Your task to perform on an android device: check google app version Image 0: 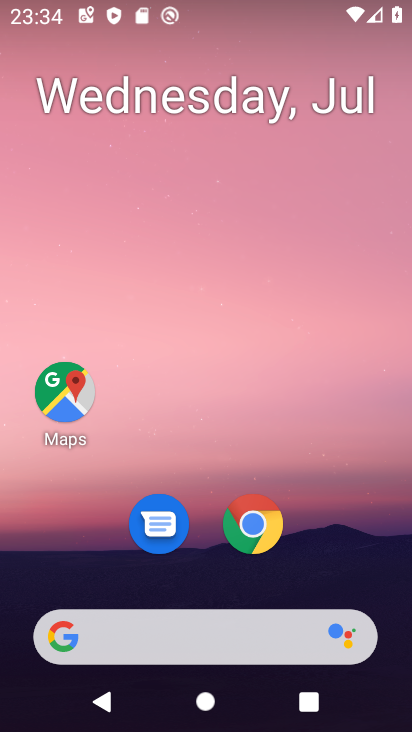
Step 0: drag from (201, 649) to (287, 136)
Your task to perform on an android device: check google app version Image 1: 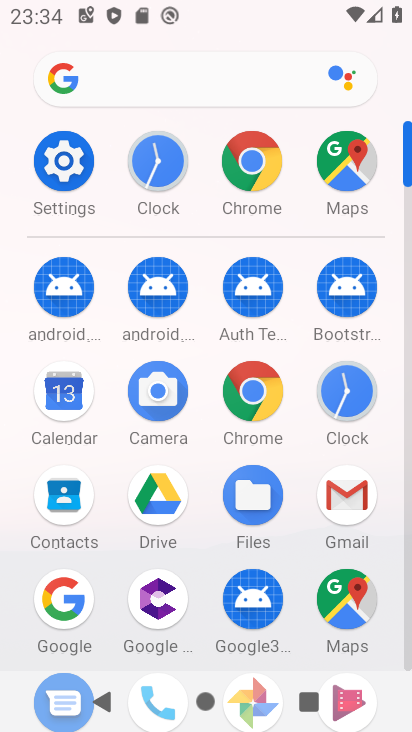
Step 1: click (74, 586)
Your task to perform on an android device: check google app version Image 2: 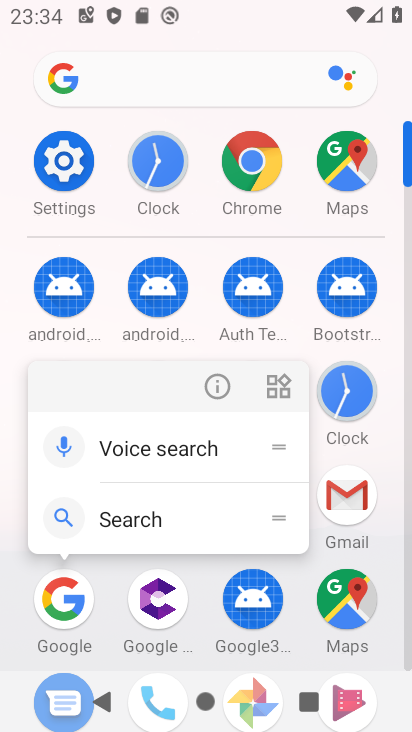
Step 2: click (219, 387)
Your task to perform on an android device: check google app version Image 3: 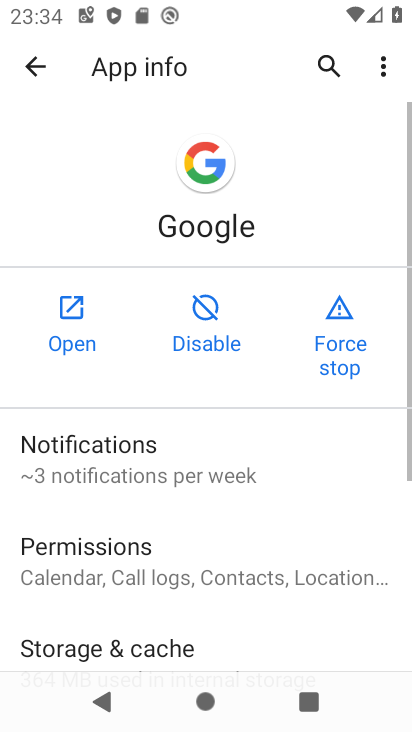
Step 3: drag from (201, 574) to (321, 103)
Your task to perform on an android device: check google app version Image 4: 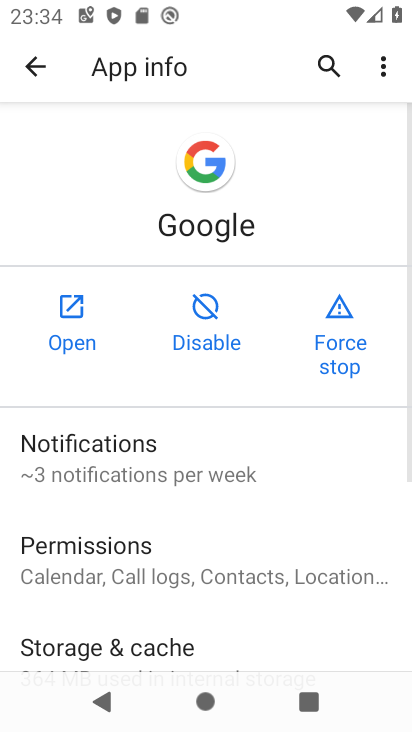
Step 4: drag from (213, 662) to (323, 89)
Your task to perform on an android device: check google app version Image 5: 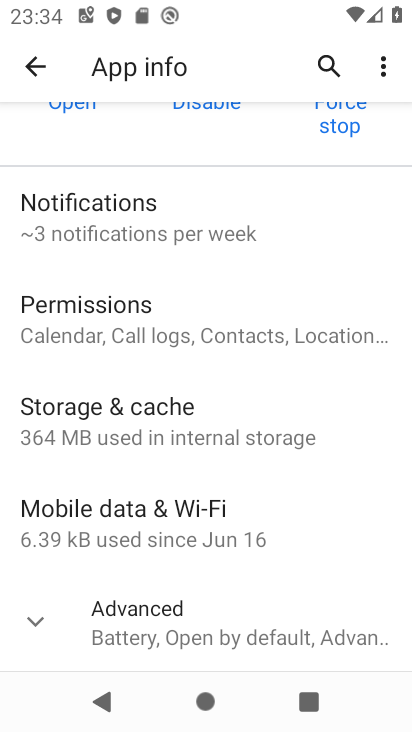
Step 5: click (163, 618)
Your task to perform on an android device: check google app version Image 6: 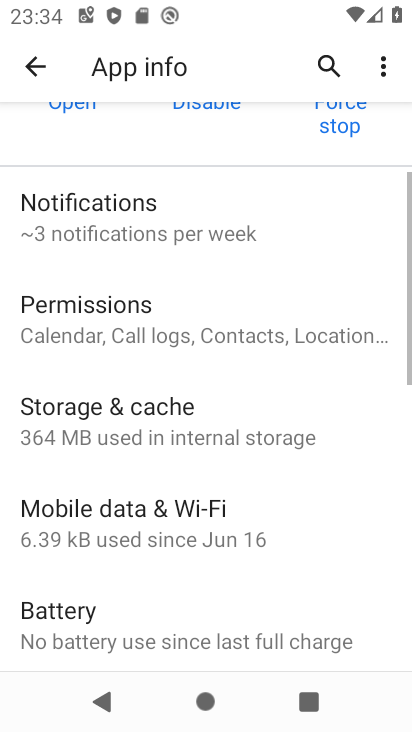
Step 6: task complete